Your task to perform on an android device: check out phone information Image 0: 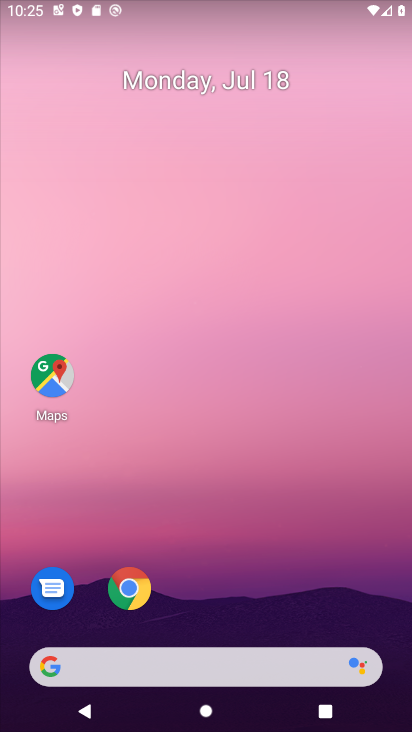
Step 0: drag from (239, 726) to (229, 69)
Your task to perform on an android device: check out phone information Image 1: 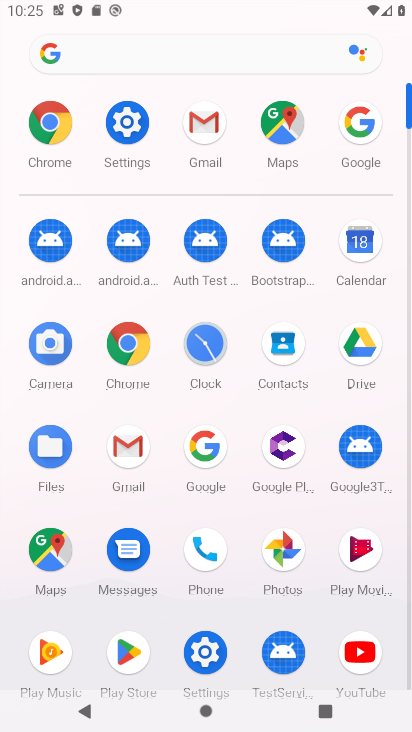
Step 1: click (122, 118)
Your task to perform on an android device: check out phone information Image 2: 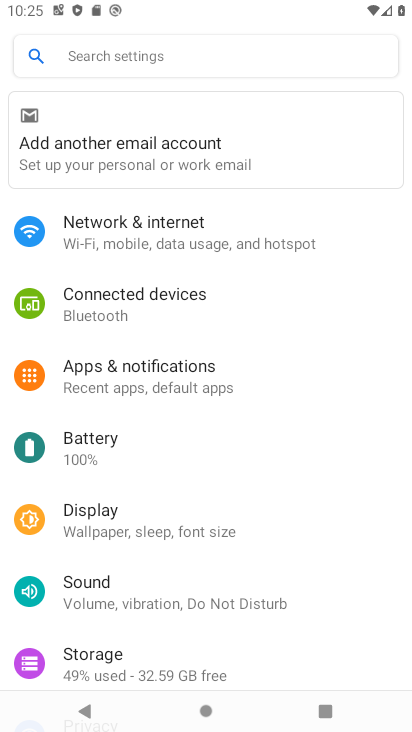
Step 2: drag from (121, 670) to (105, 335)
Your task to perform on an android device: check out phone information Image 3: 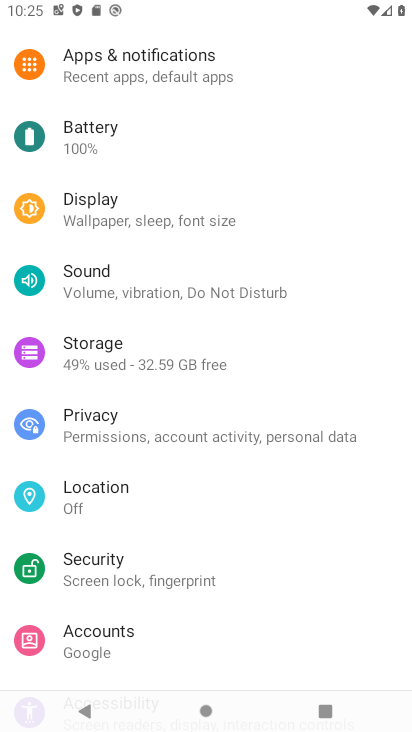
Step 3: drag from (152, 662) to (160, 351)
Your task to perform on an android device: check out phone information Image 4: 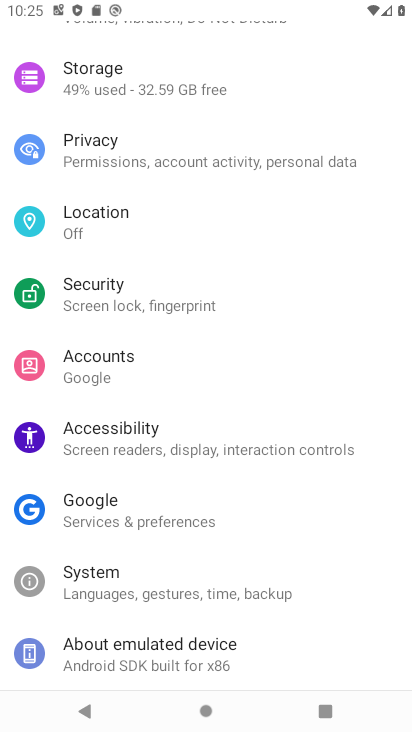
Step 4: click (175, 640)
Your task to perform on an android device: check out phone information Image 5: 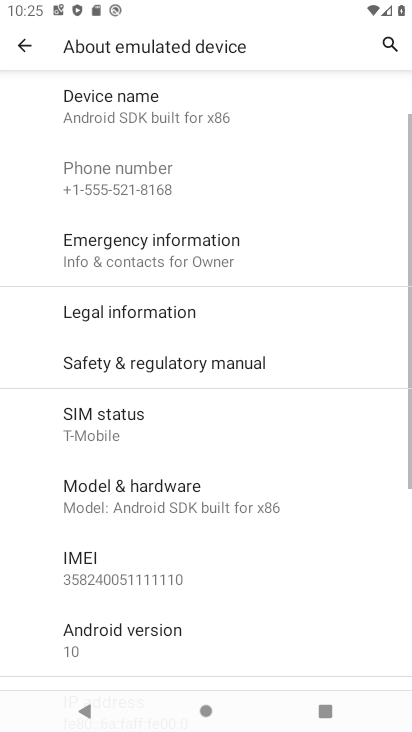
Step 5: task complete